Your task to perform on an android device: Go to ESPN.com Image 0: 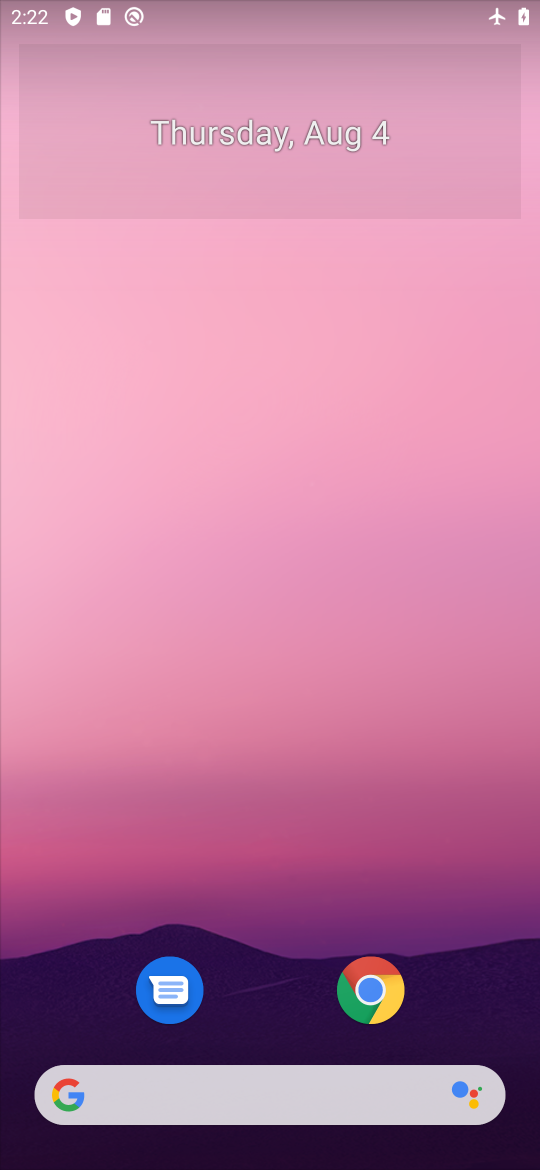
Step 0: click (366, 987)
Your task to perform on an android device: Go to ESPN.com Image 1: 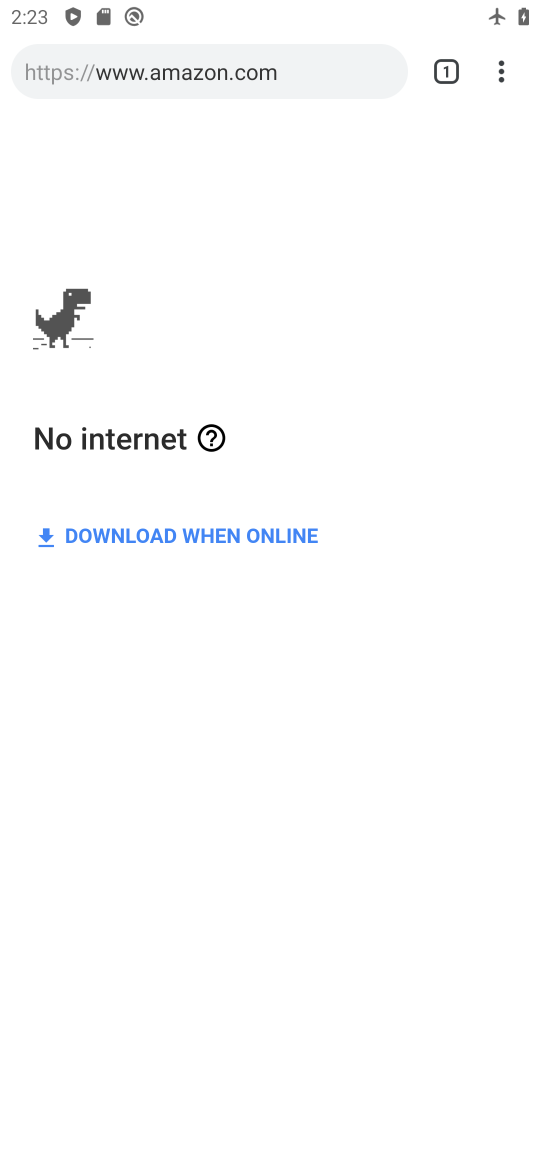
Step 1: task complete